Your task to perform on an android device: Search for "apple airpods" on costco, select the first entry, and add it to the cart. Image 0: 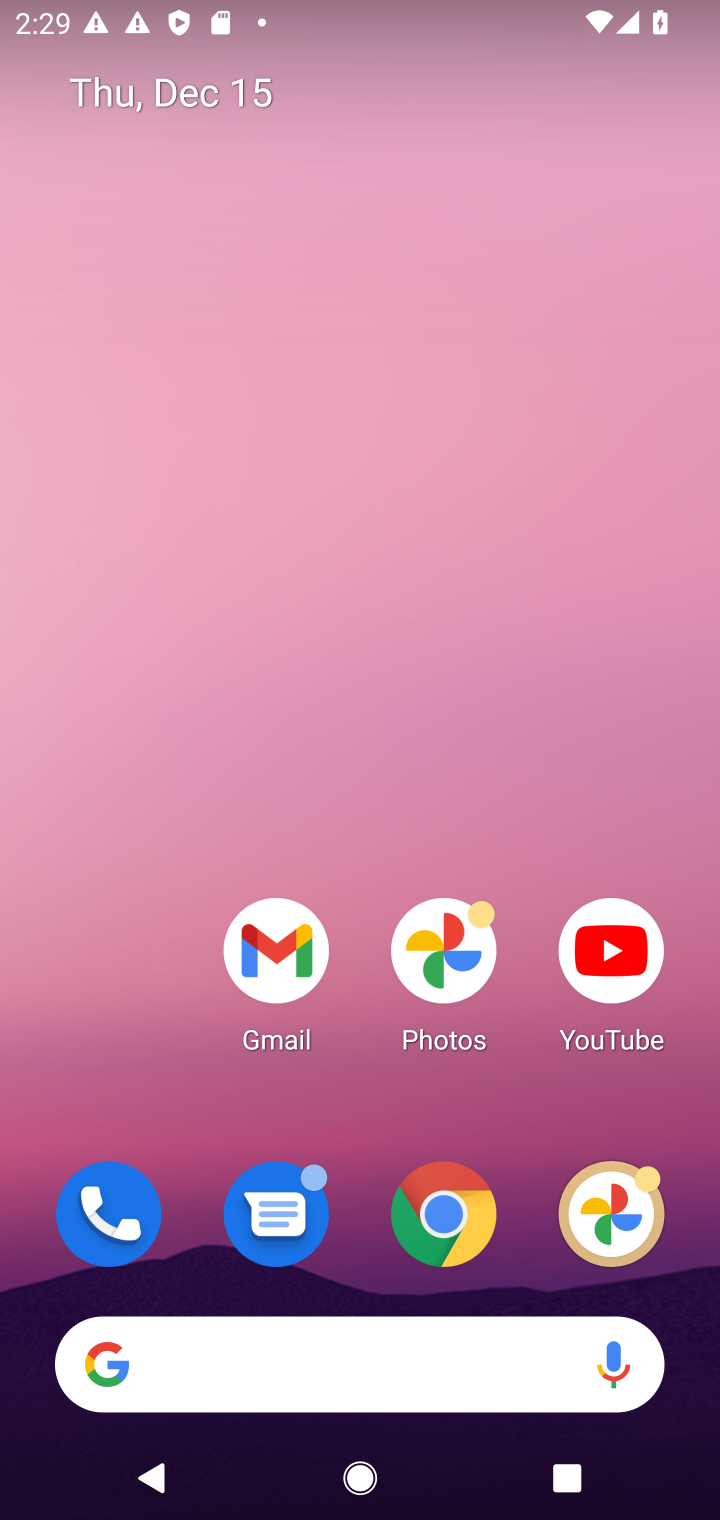
Step 0: click (440, 1235)
Your task to perform on an android device: Search for "apple airpods" on costco, select the first entry, and add it to the cart. Image 1: 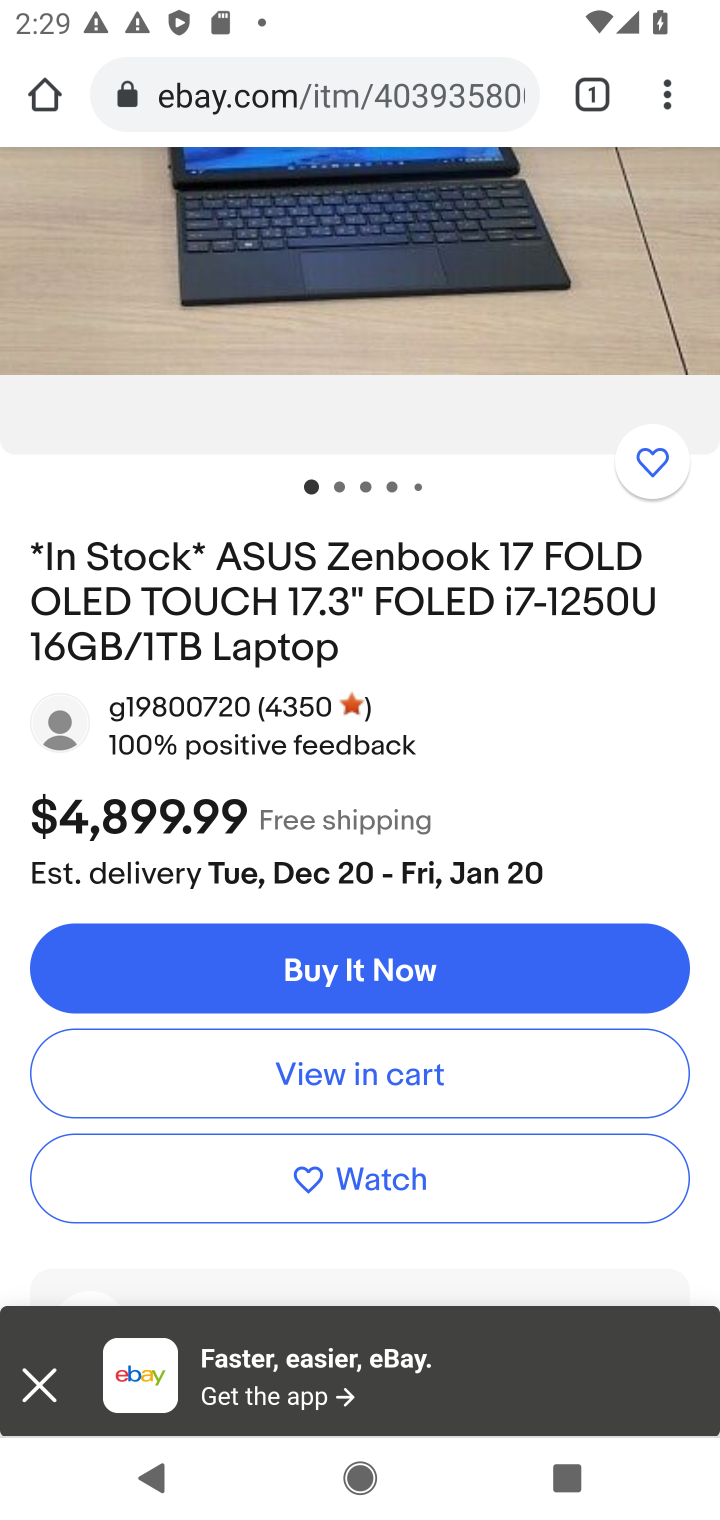
Step 1: click (285, 85)
Your task to perform on an android device: Search for "apple airpods" on costco, select the first entry, and add it to the cart. Image 2: 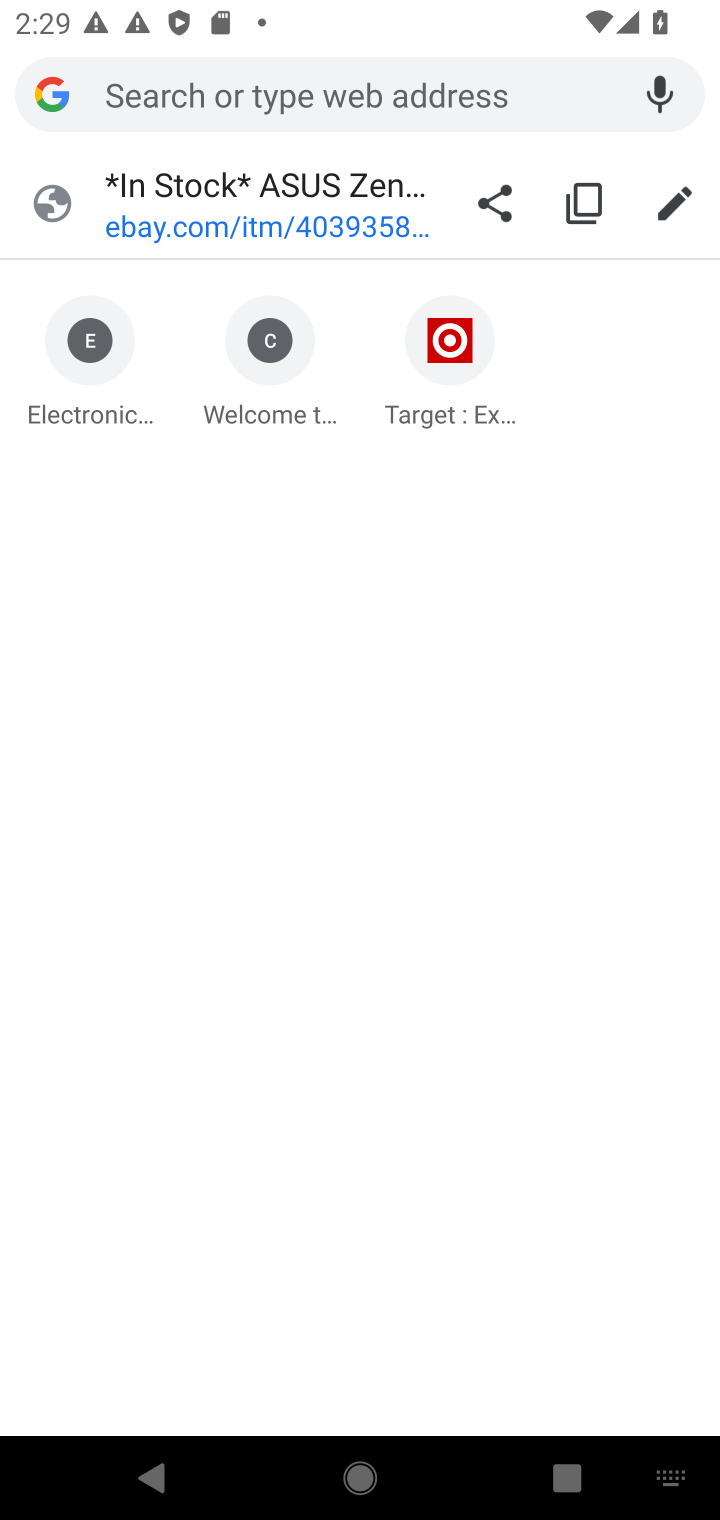
Step 2: type "costco.com"
Your task to perform on an android device: Search for "apple airpods" on costco, select the first entry, and add it to the cart. Image 3: 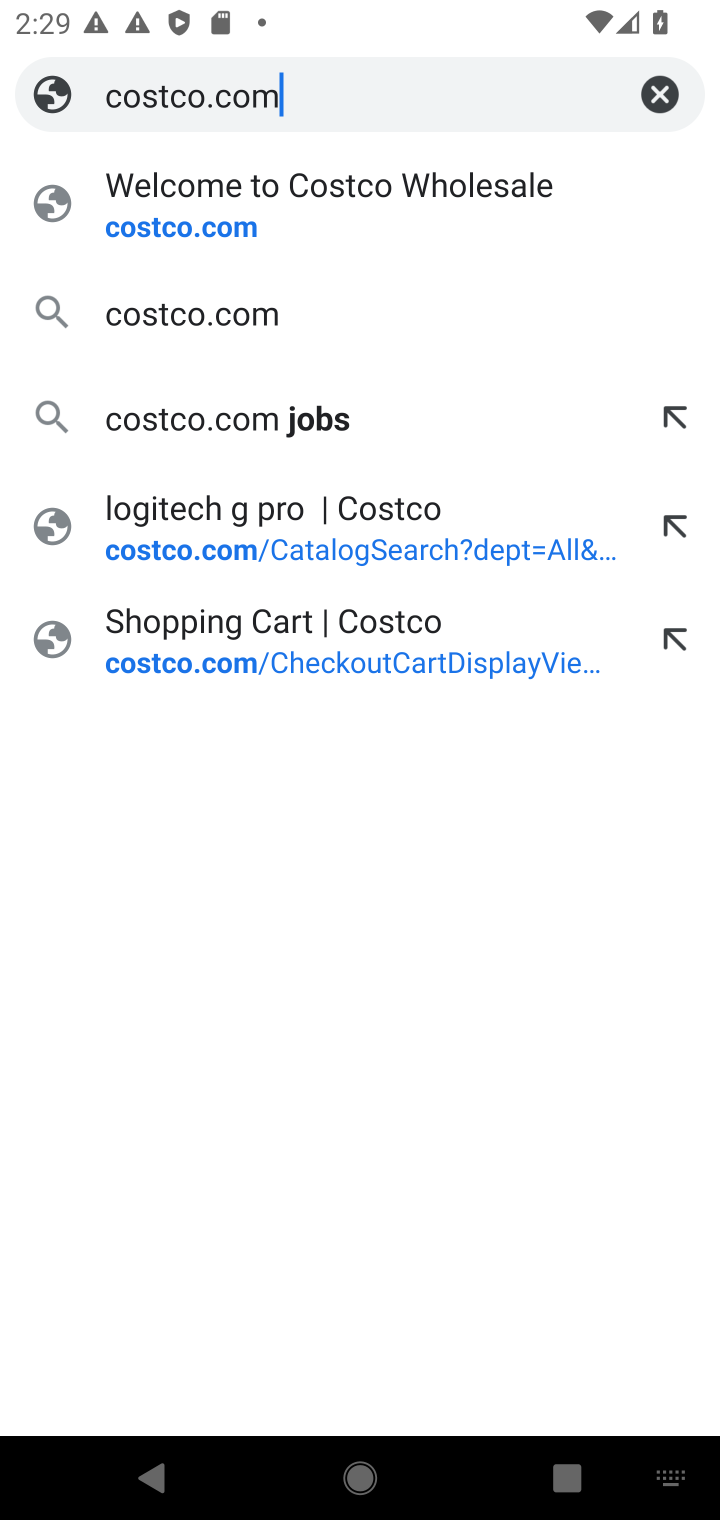
Step 3: click (153, 227)
Your task to perform on an android device: Search for "apple airpods" on costco, select the first entry, and add it to the cart. Image 4: 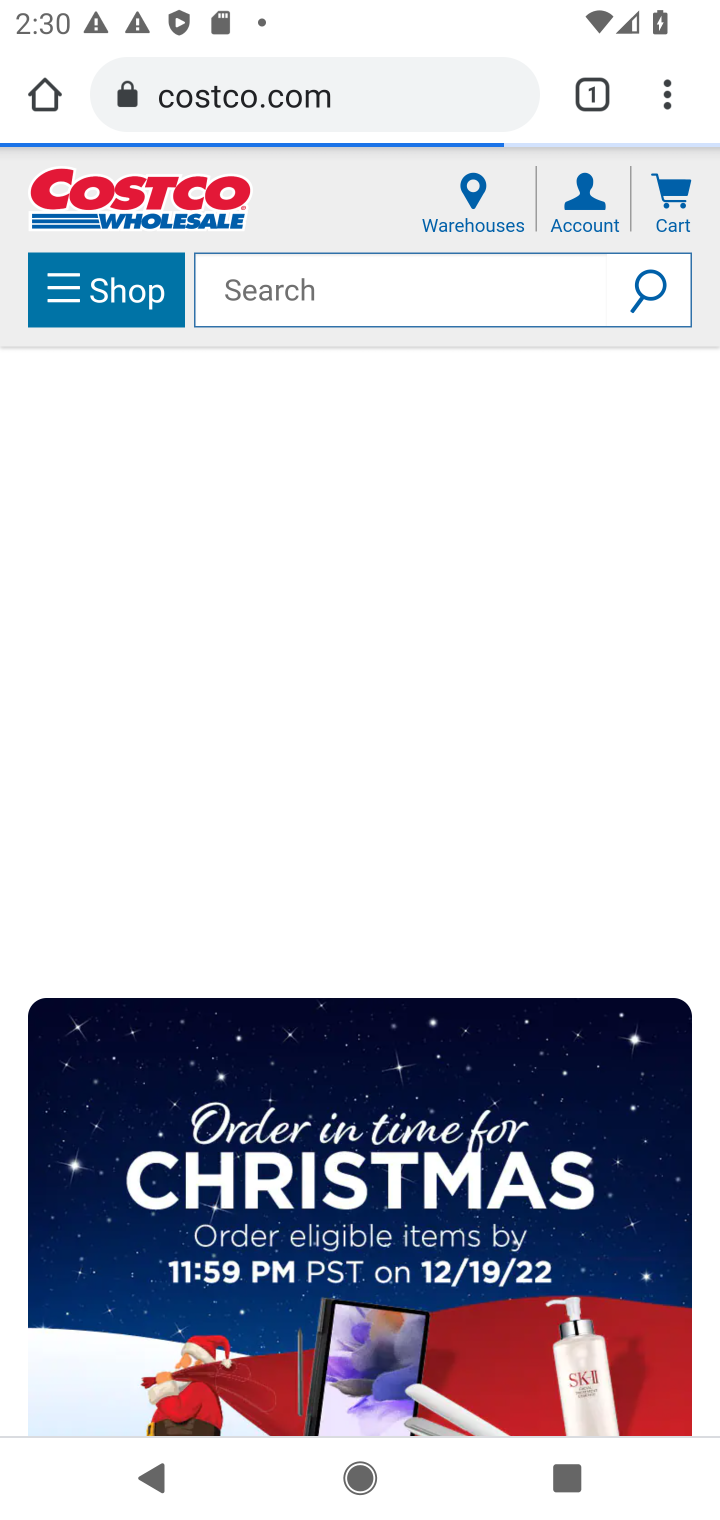
Step 4: click (284, 285)
Your task to perform on an android device: Search for "apple airpods" on costco, select the first entry, and add it to the cart. Image 5: 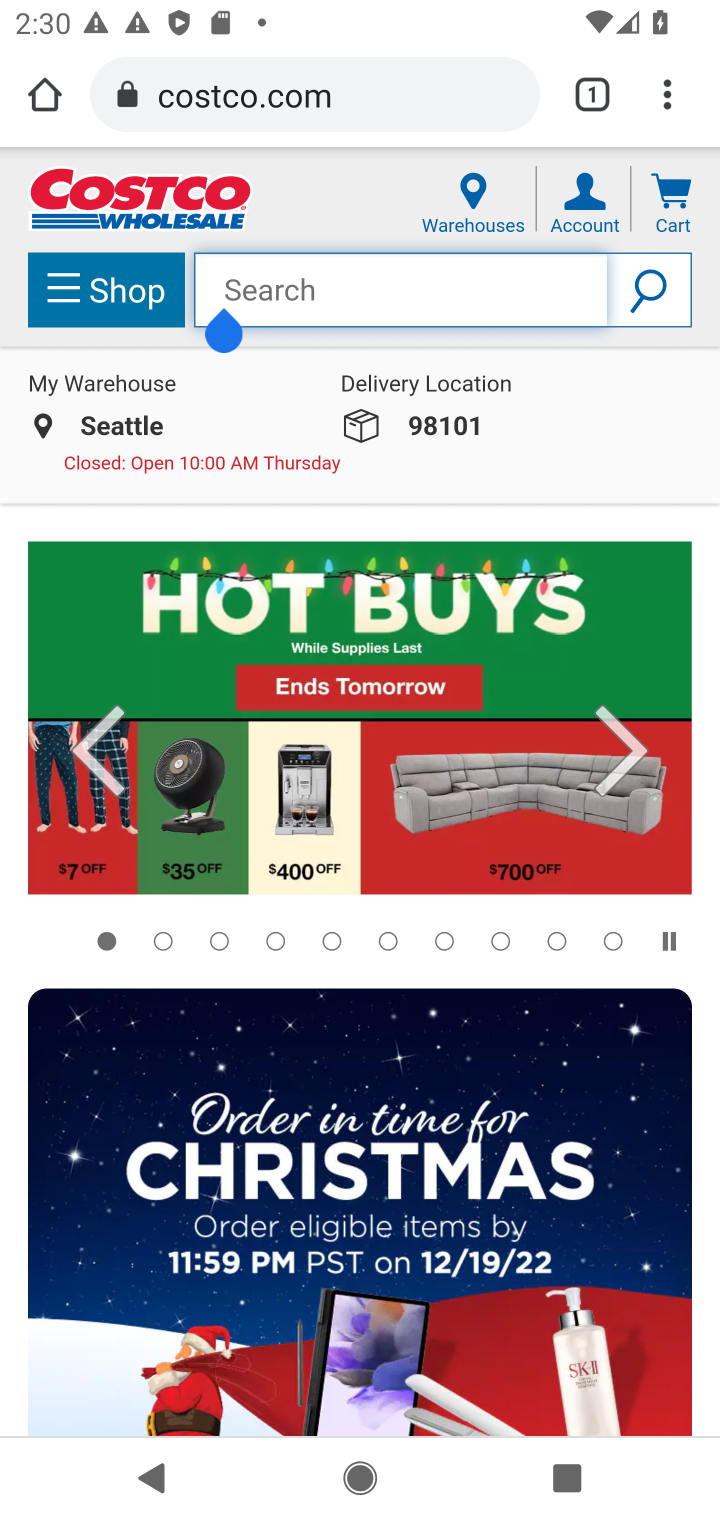
Step 5: type "apple airpods"
Your task to perform on an android device: Search for "apple airpods" on costco, select the first entry, and add it to the cart. Image 6: 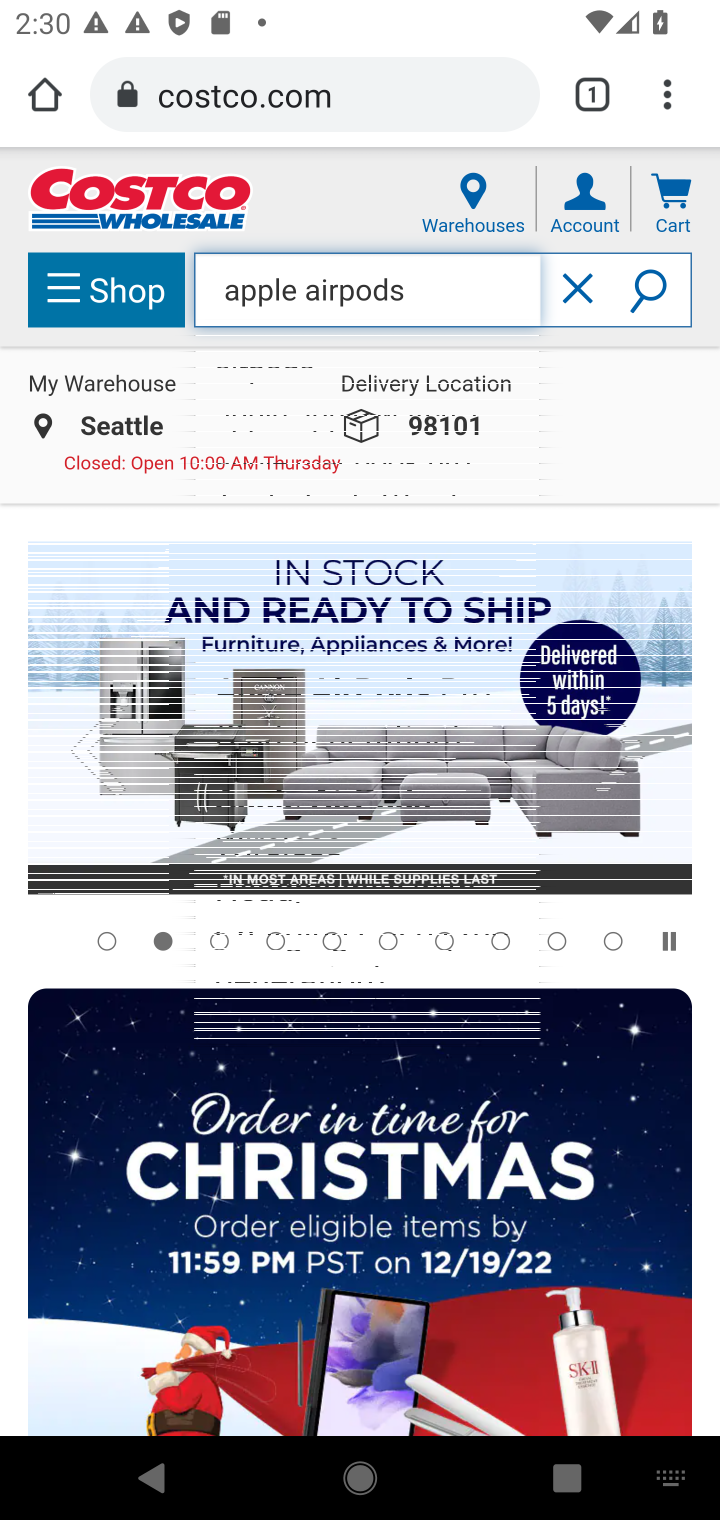
Step 6: click (637, 293)
Your task to perform on an android device: Search for "apple airpods" on costco, select the first entry, and add it to the cart. Image 7: 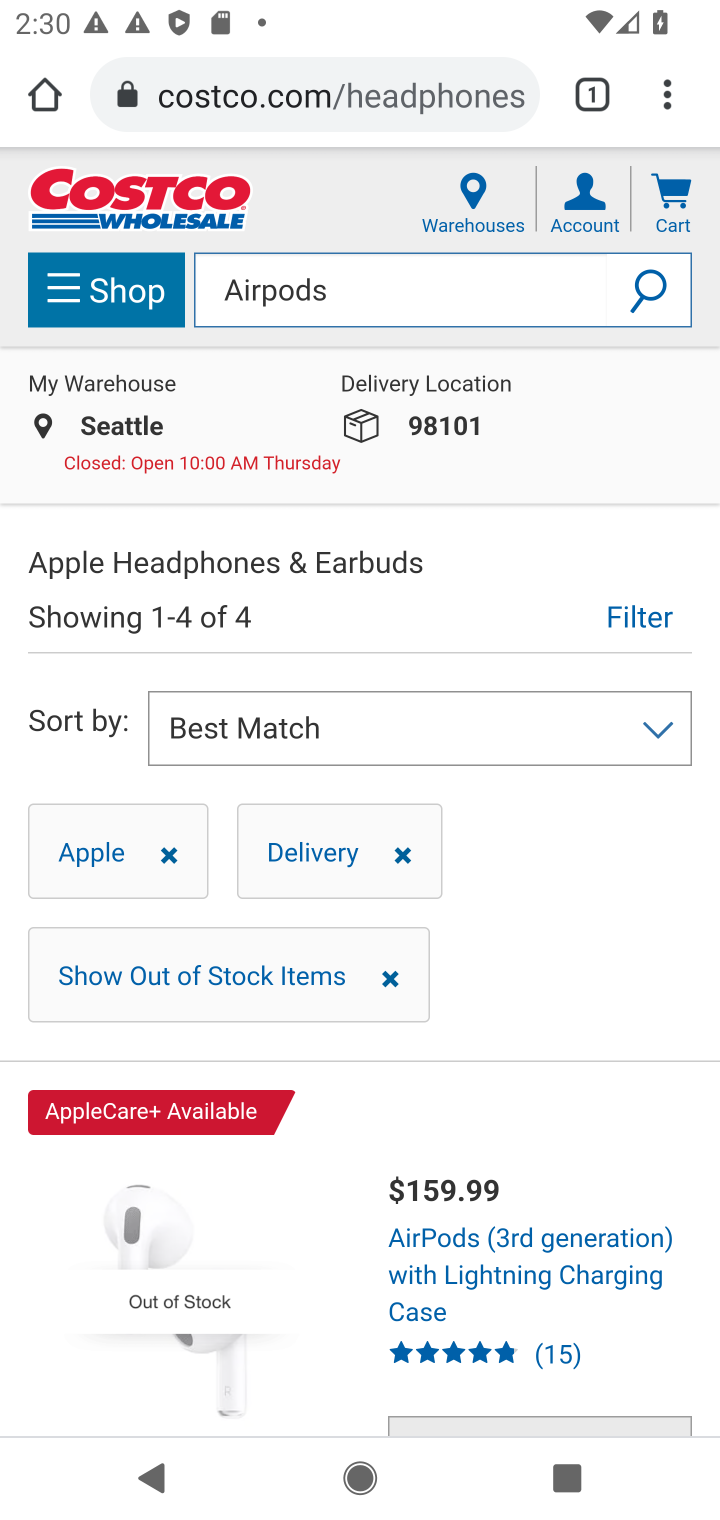
Step 7: task complete